Your task to perform on an android device: change text size in settings app Image 0: 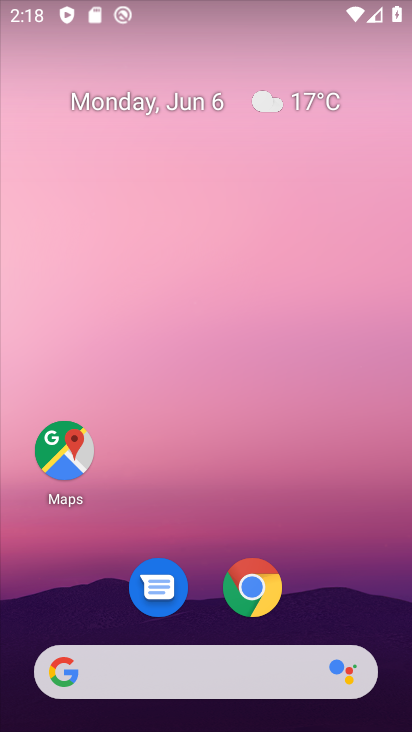
Step 0: drag from (312, 550) to (173, 15)
Your task to perform on an android device: change text size in settings app Image 1: 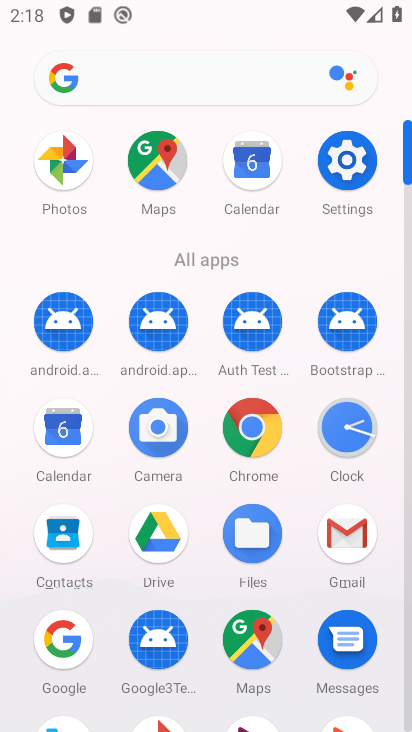
Step 1: drag from (5, 565) to (13, 202)
Your task to perform on an android device: change text size in settings app Image 2: 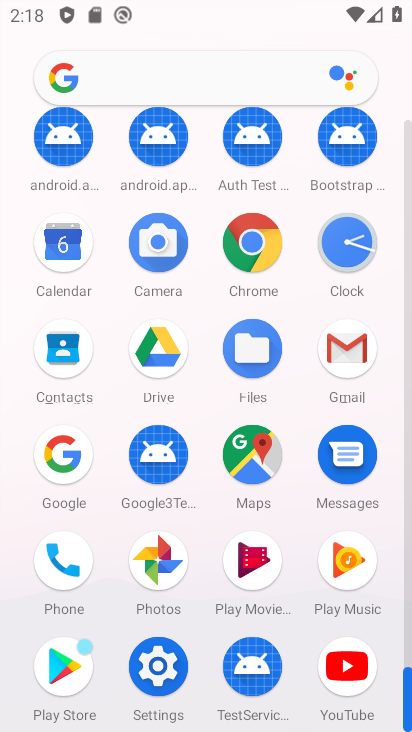
Step 2: click (155, 665)
Your task to perform on an android device: change text size in settings app Image 3: 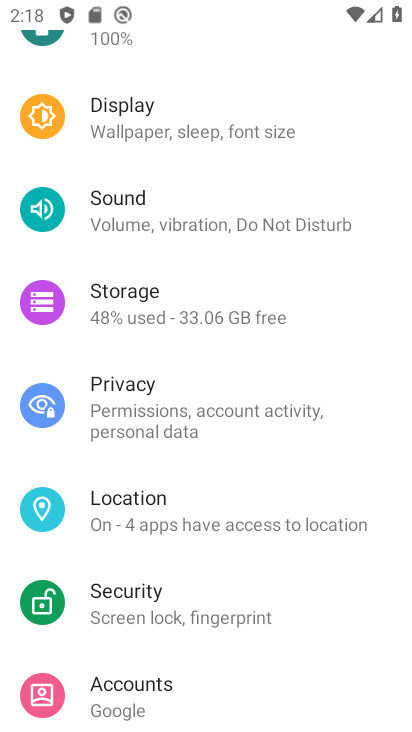
Step 3: drag from (240, 141) to (240, 484)
Your task to perform on an android device: change text size in settings app Image 4: 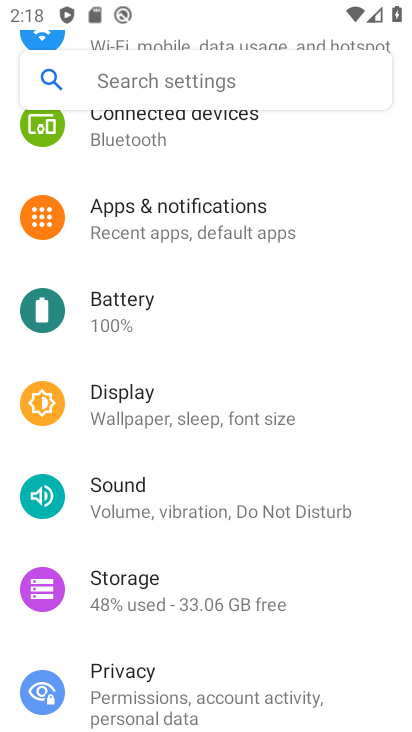
Step 4: drag from (245, 253) to (249, 596)
Your task to perform on an android device: change text size in settings app Image 5: 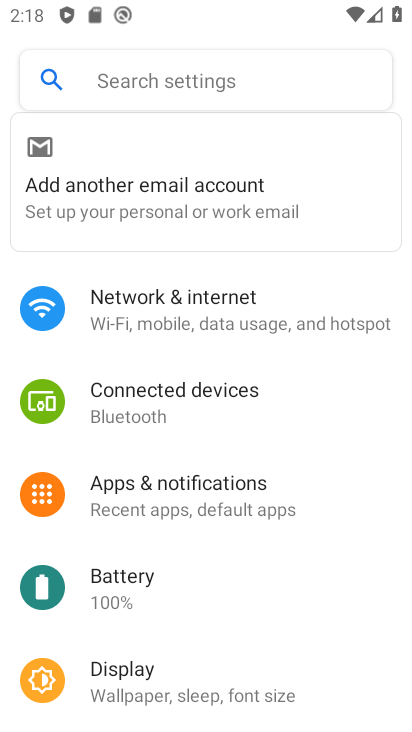
Step 5: drag from (252, 592) to (256, 287)
Your task to perform on an android device: change text size in settings app Image 6: 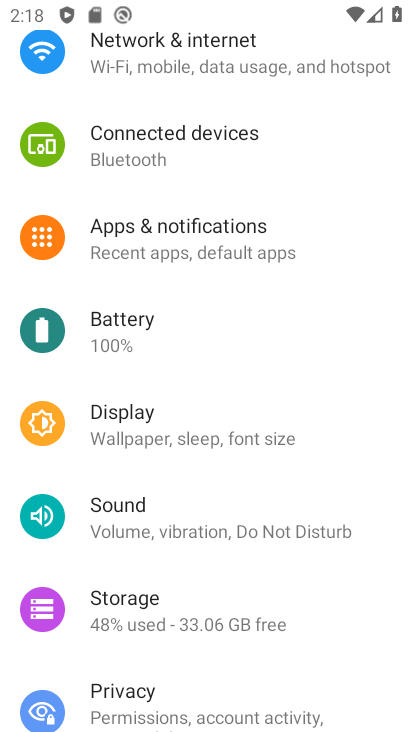
Step 6: click (211, 433)
Your task to perform on an android device: change text size in settings app Image 7: 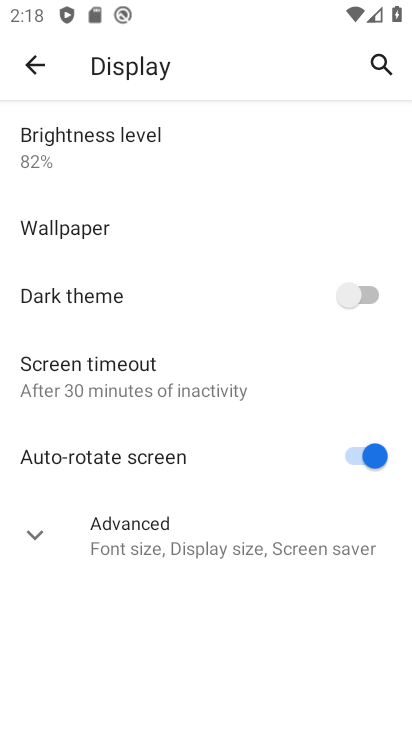
Step 7: click (63, 541)
Your task to perform on an android device: change text size in settings app Image 8: 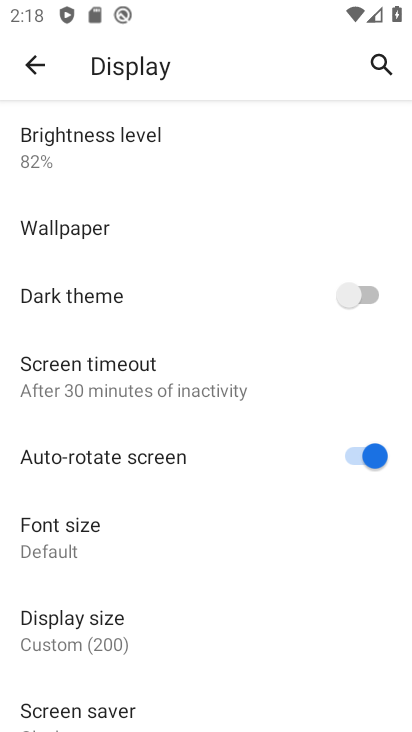
Step 8: drag from (185, 544) to (228, 246)
Your task to perform on an android device: change text size in settings app Image 9: 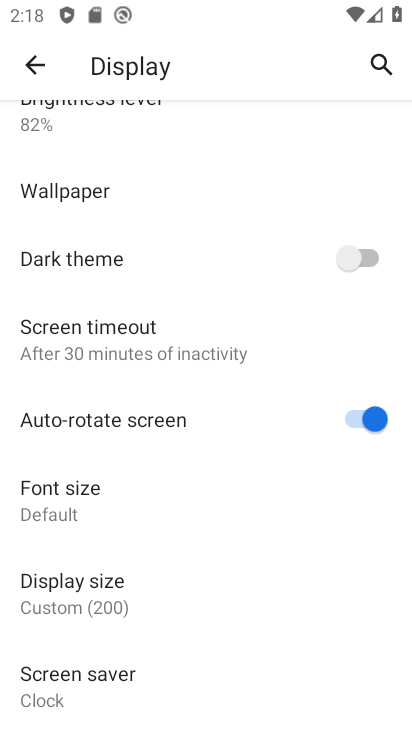
Step 9: click (96, 484)
Your task to perform on an android device: change text size in settings app Image 10: 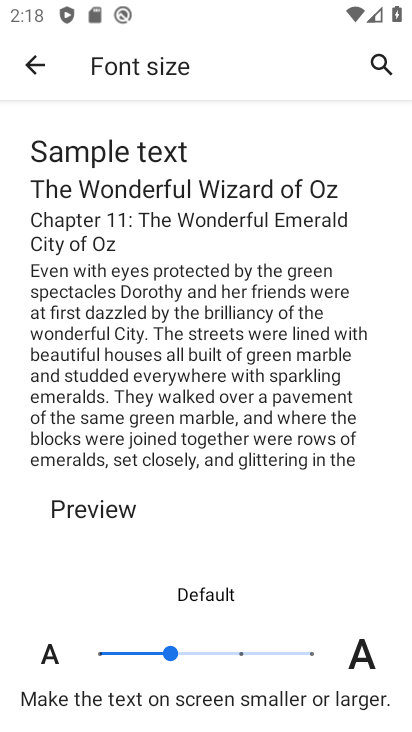
Step 10: click (236, 654)
Your task to perform on an android device: change text size in settings app Image 11: 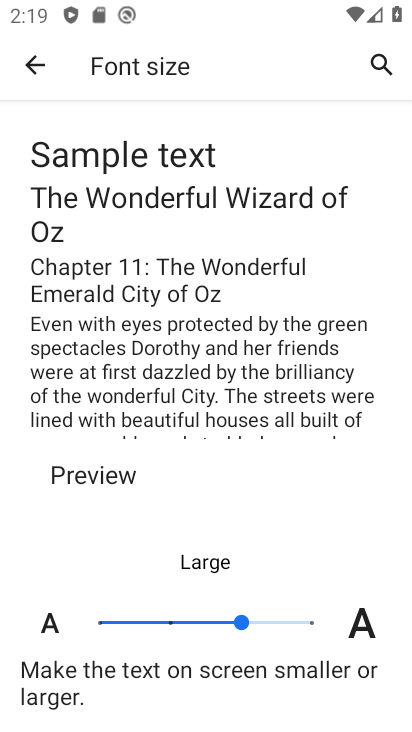
Step 11: task complete